Your task to perform on an android device: Open the stopwatch Image 0: 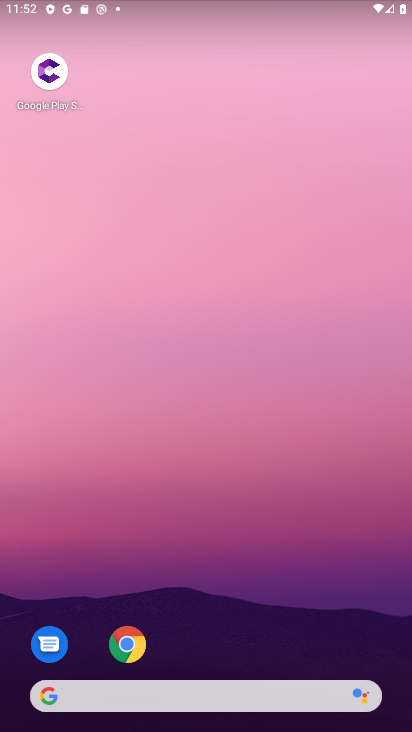
Step 0: drag from (234, 573) to (154, 47)
Your task to perform on an android device: Open the stopwatch Image 1: 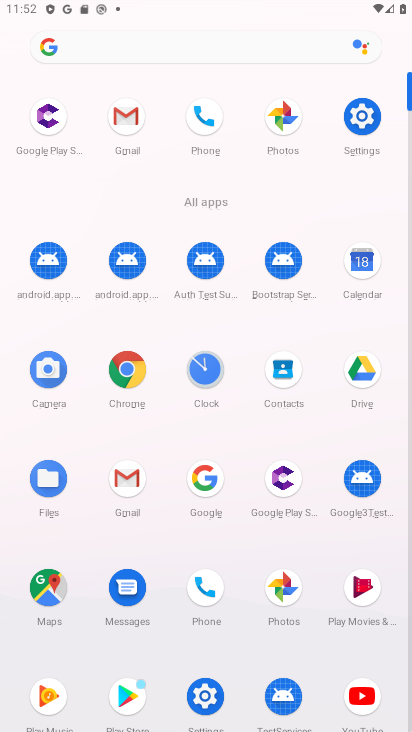
Step 1: click (213, 372)
Your task to perform on an android device: Open the stopwatch Image 2: 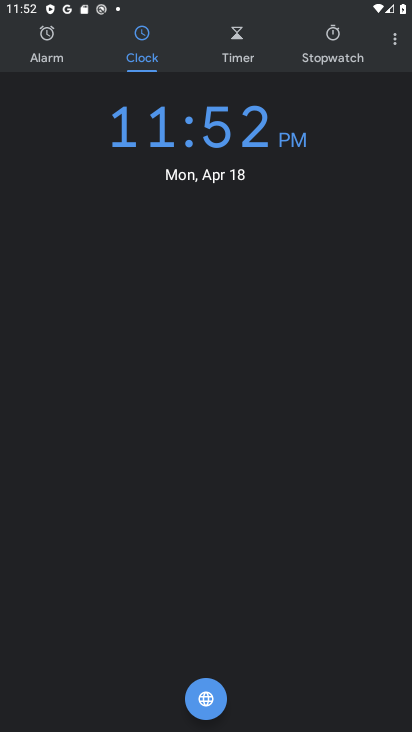
Step 2: click (339, 55)
Your task to perform on an android device: Open the stopwatch Image 3: 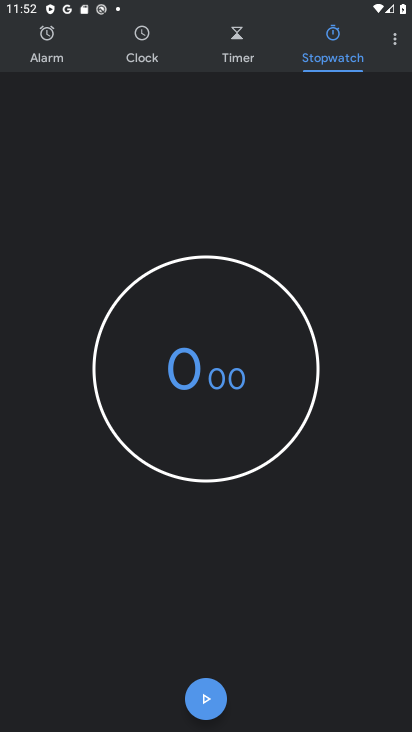
Step 3: task complete